Your task to perform on an android device: empty trash in google photos Image 0: 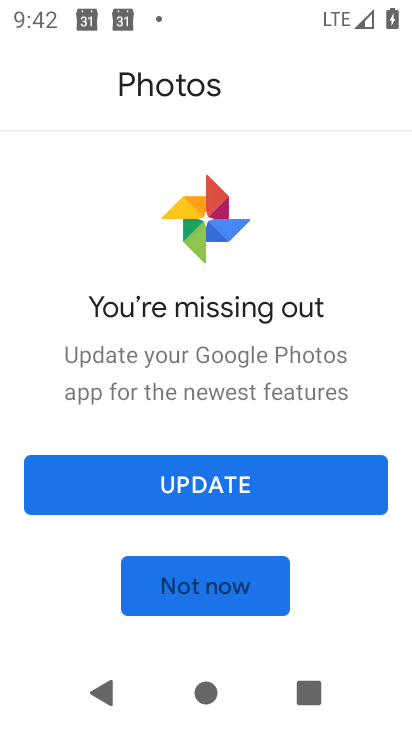
Step 0: press home button
Your task to perform on an android device: empty trash in google photos Image 1: 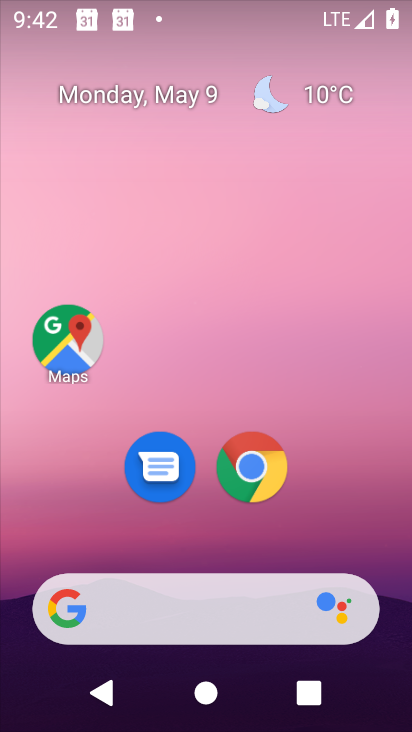
Step 1: drag from (364, 557) to (394, 4)
Your task to perform on an android device: empty trash in google photos Image 2: 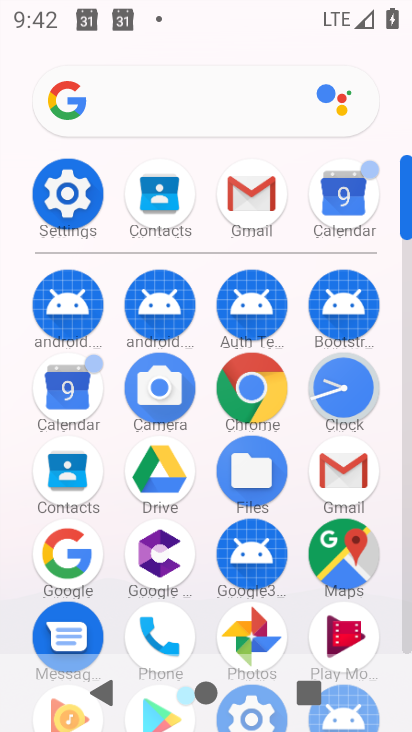
Step 2: click (251, 625)
Your task to perform on an android device: empty trash in google photos Image 3: 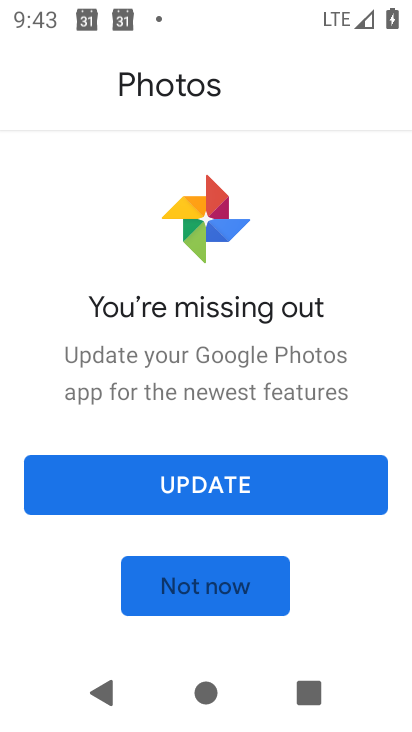
Step 3: click (229, 589)
Your task to perform on an android device: empty trash in google photos Image 4: 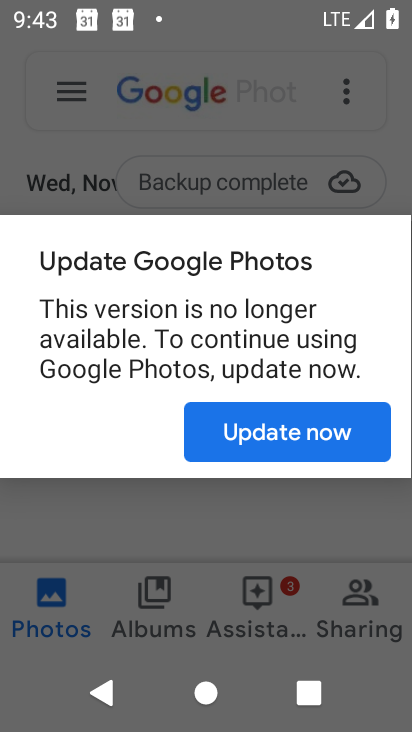
Step 4: click (280, 435)
Your task to perform on an android device: empty trash in google photos Image 5: 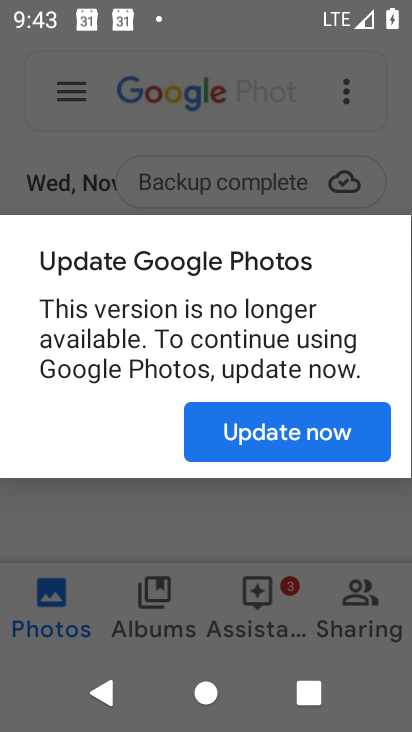
Step 5: click (60, 95)
Your task to perform on an android device: empty trash in google photos Image 6: 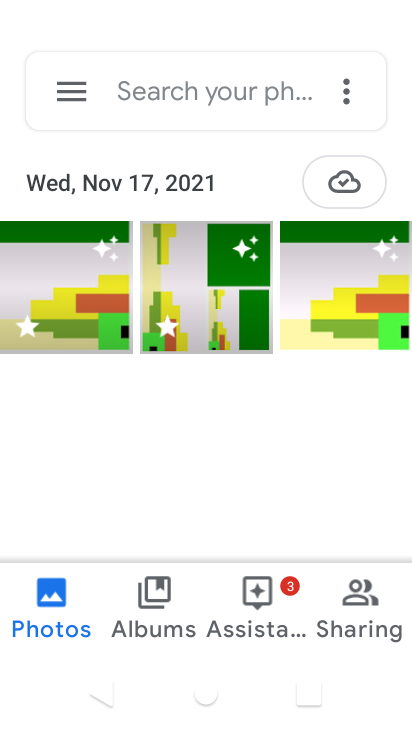
Step 6: click (218, 410)
Your task to perform on an android device: empty trash in google photos Image 7: 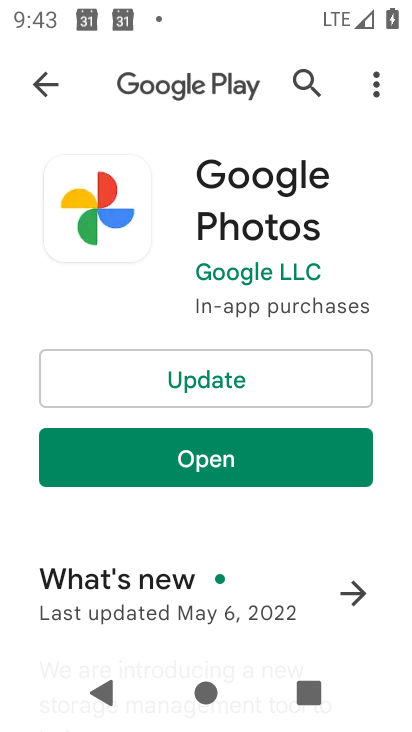
Step 7: click (198, 449)
Your task to perform on an android device: empty trash in google photos Image 8: 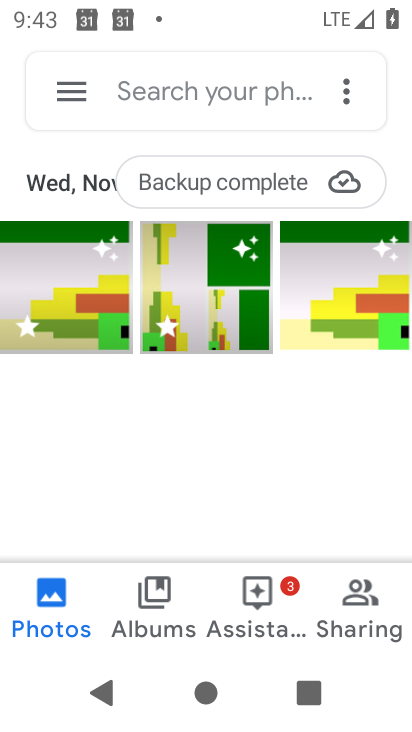
Step 8: click (71, 88)
Your task to perform on an android device: empty trash in google photos Image 9: 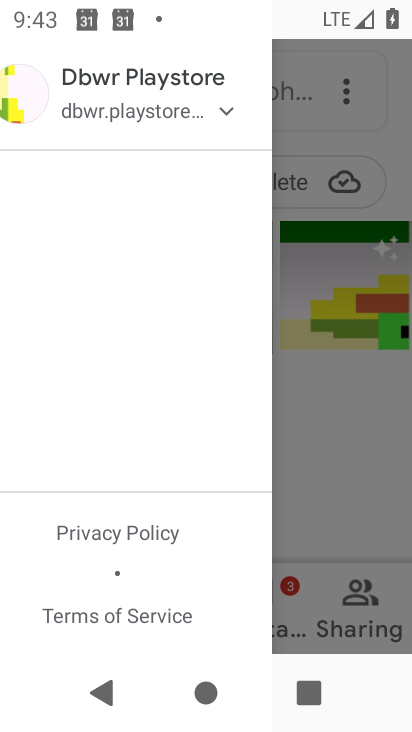
Step 9: click (71, 97)
Your task to perform on an android device: empty trash in google photos Image 10: 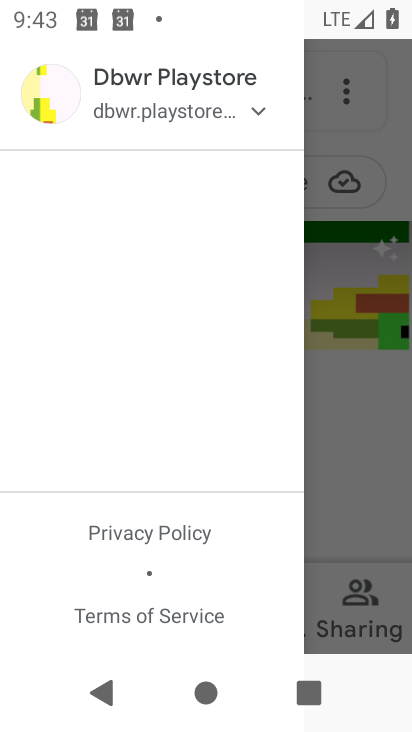
Step 10: drag from (70, 228) to (111, 82)
Your task to perform on an android device: empty trash in google photos Image 11: 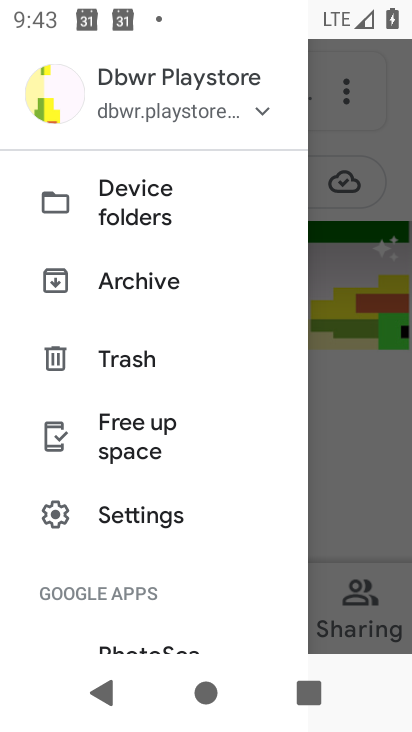
Step 11: click (150, 347)
Your task to perform on an android device: empty trash in google photos Image 12: 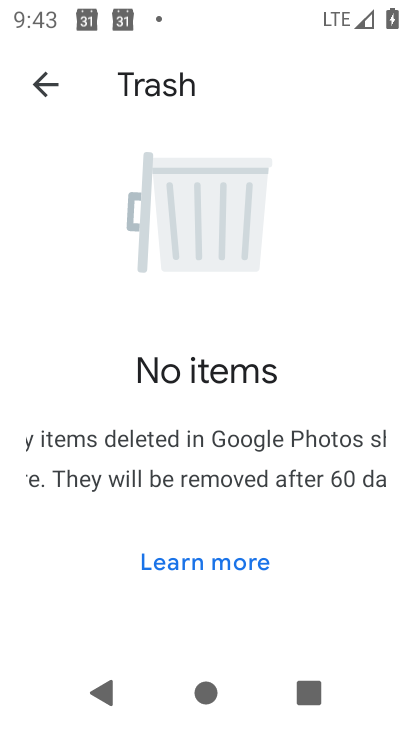
Step 12: task complete